Your task to perform on an android device: toggle sleep mode Image 0: 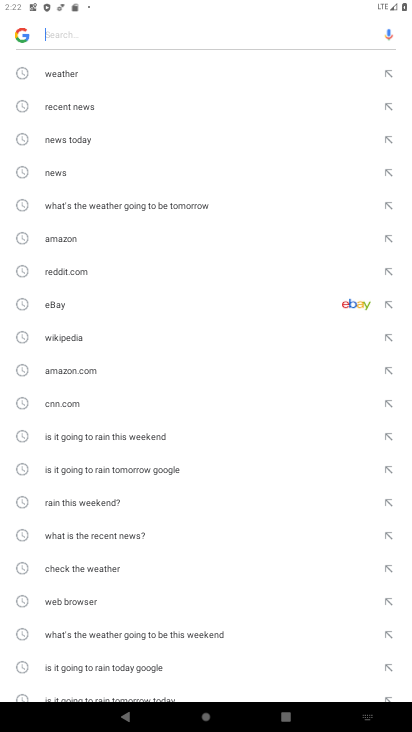
Step 0: press home button
Your task to perform on an android device: toggle sleep mode Image 1: 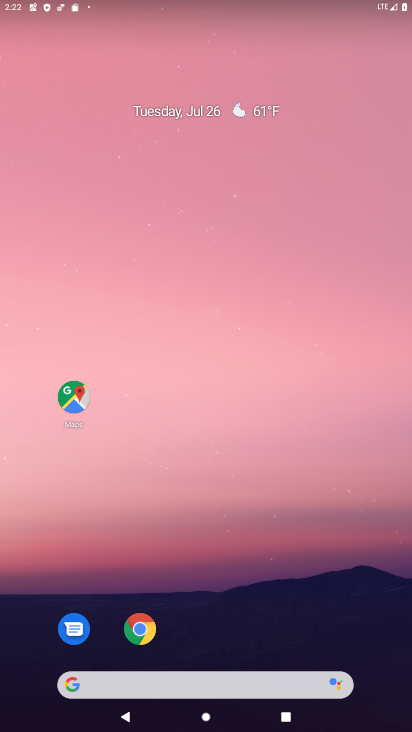
Step 1: drag from (244, 565) to (221, 49)
Your task to perform on an android device: toggle sleep mode Image 2: 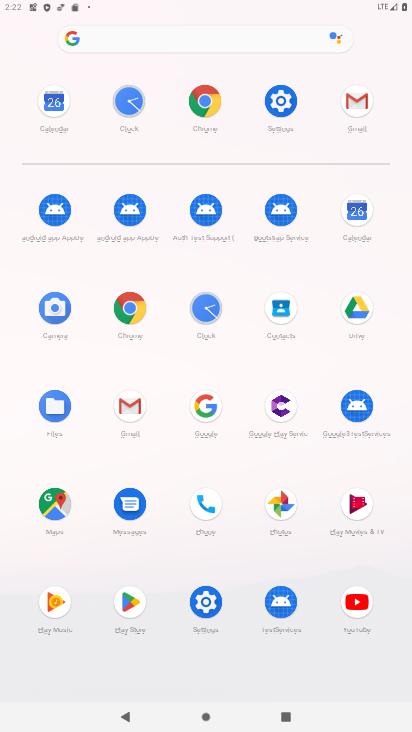
Step 2: click (280, 99)
Your task to perform on an android device: toggle sleep mode Image 3: 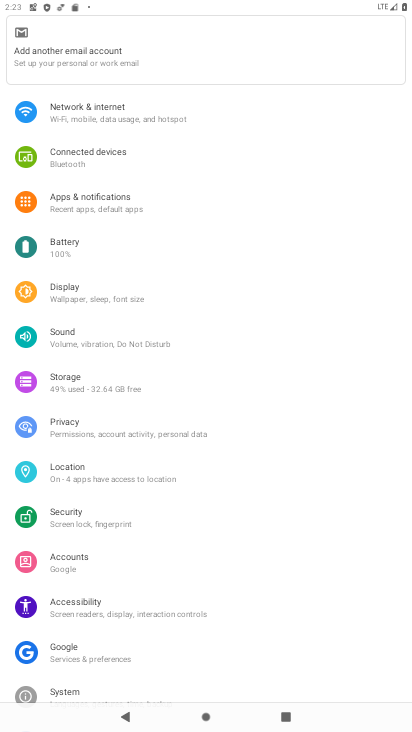
Step 3: click (64, 290)
Your task to perform on an android device: toggle sleep mode Image 4: 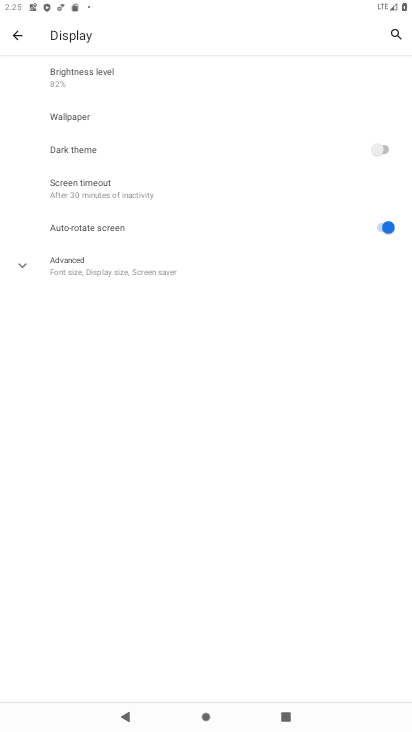
Step 4: task complete